Your task to perform on an android device: turn off priority inbox in the gmail app Image 0: 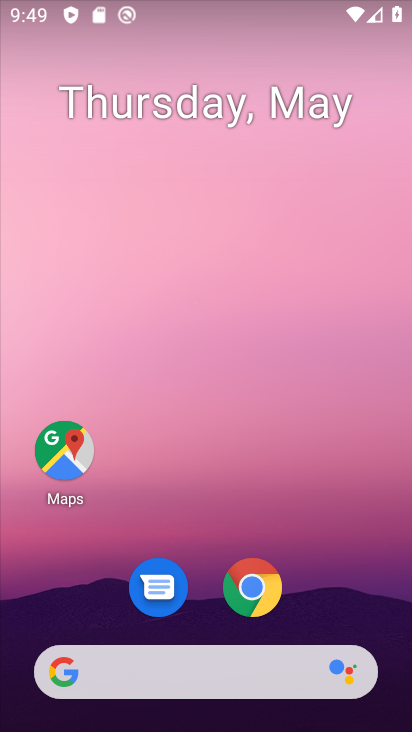
Step 0: drag from (306, 570) to (310, 109)
Your task to perform on an android device: turn off priority inbox in the gmail app Image 1: 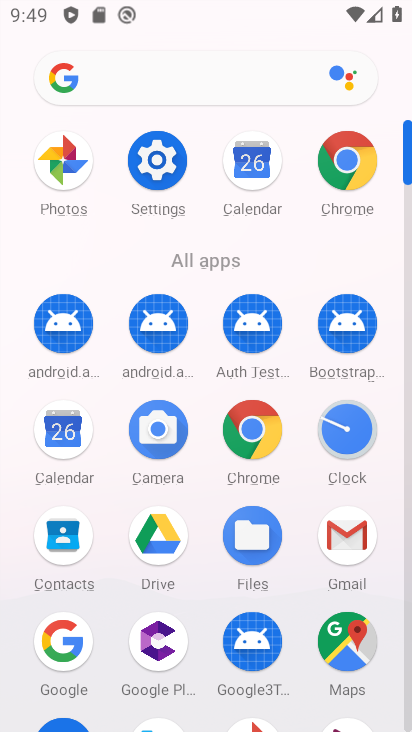
Step 1: click (362, 538)
Your task to perform on an android device: turn off priority inbox in the gmail app Image 2: 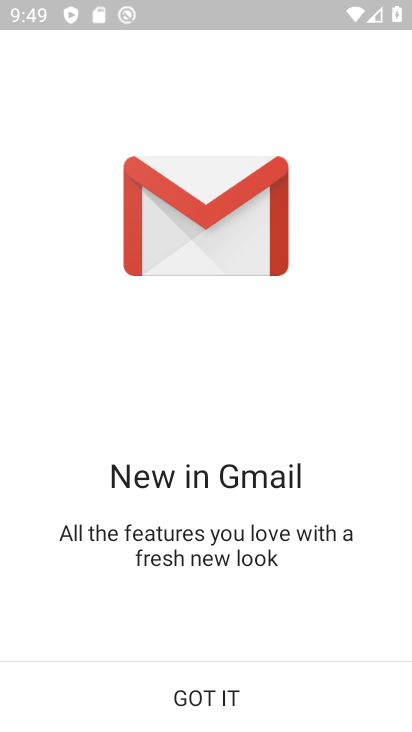
Step 2: click (238, 692)
Your task to perform on an android device: turn off priority inbox in the gmail app Image 3: 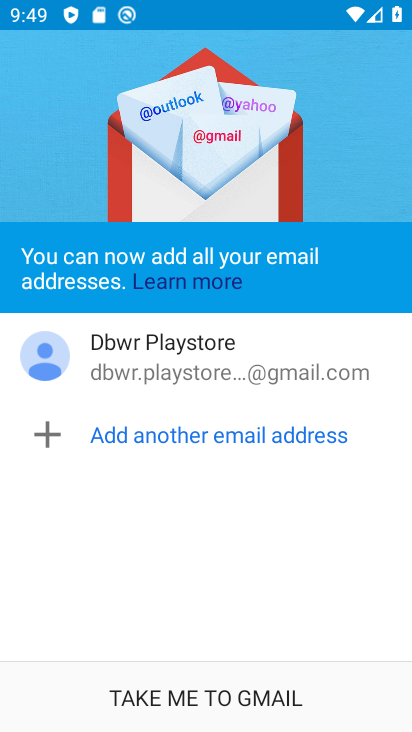
Step 3: click (241, 687)
Your task to perform on an android device: turn off priority inbox in the gmail app Image 4: 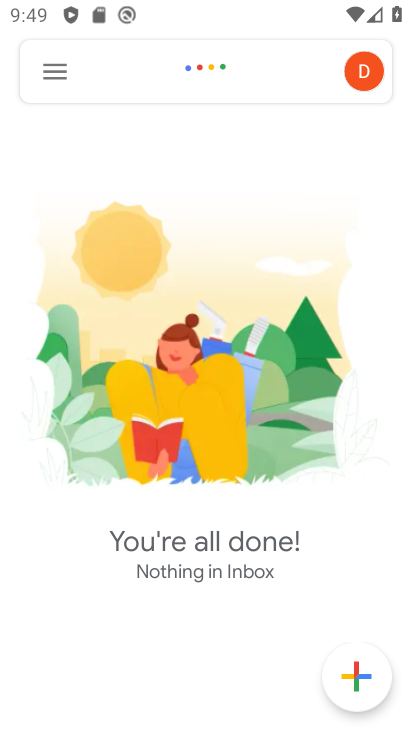
Step 4: click (67, 64)
Your task to perform on an android device: turn off priority inbox in the gmail app Image 5: 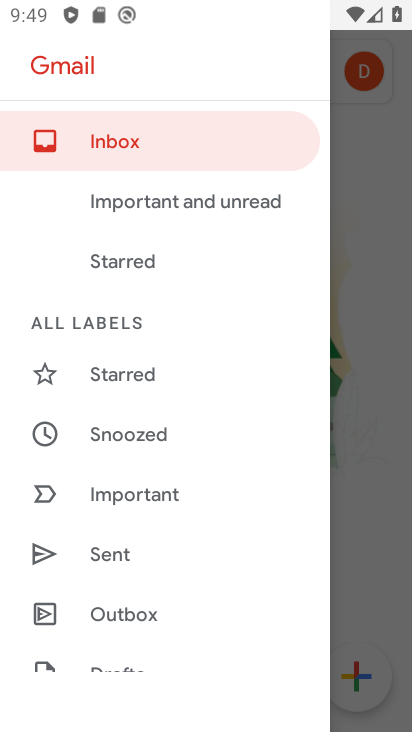
Step 5: drag from (145, 619) to (209, 227)
Your task to perform on an android device: turn off priority inbox in the gmail app Image 6: 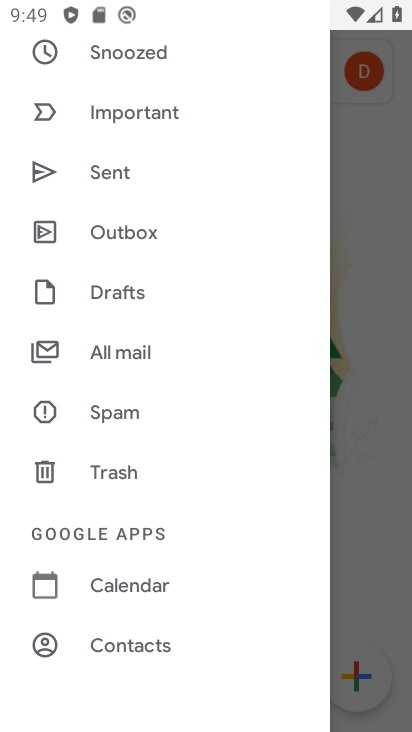
Step 6: drag from (122, 627) to (127, 100)
Your task to perform on an android device: turn off priority inbox in the gmail app Image 7: 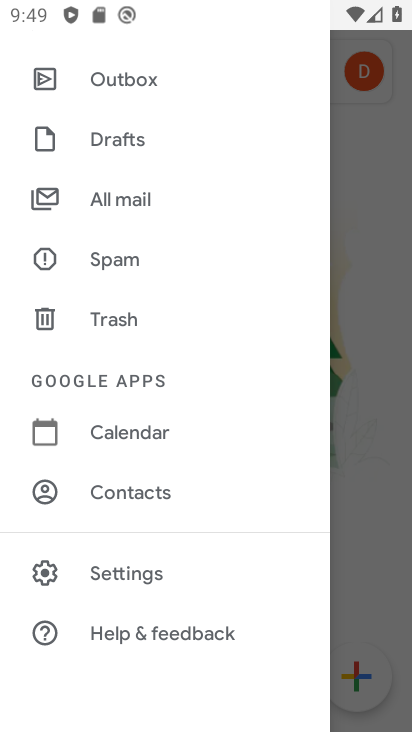
Step 7: click (111, 566)
Your task to perform on an android device: turn off priority inbox in the gmail app Image 8: 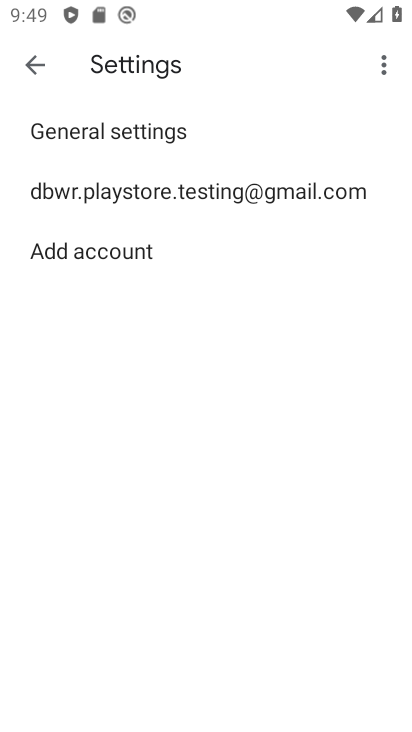
Step 8: click (130, 188)
Your task to perform on an android device: turn off priority inbox in the gmail app Image 9: 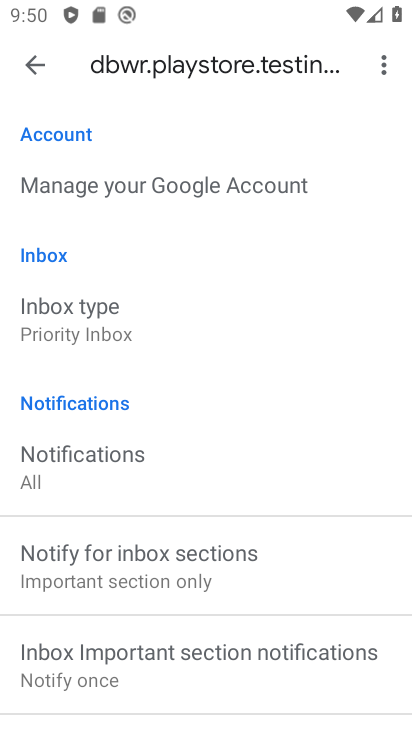
Step 9: click (61, 313)
Your task to perform on an android device: turn off priority inbox in the gmail app Image 10: 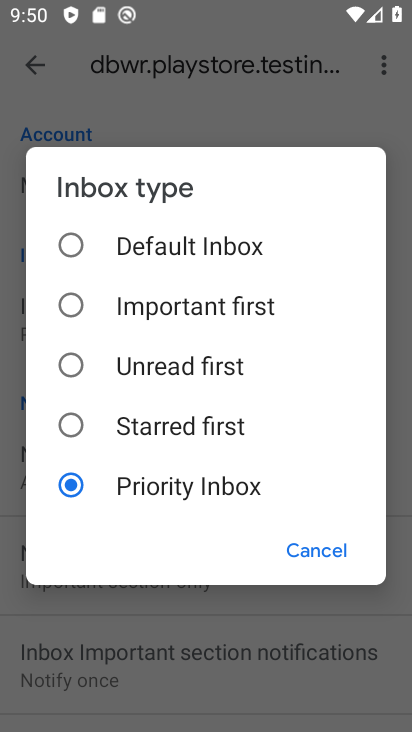
Step 10: click (134, 411)
Your task to perform on an android device: turn off priority inbox in the gmail app Image 11: 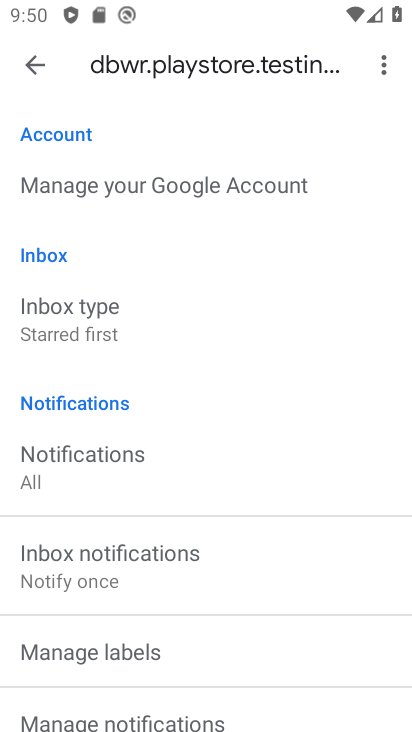
Step 11: task complete